Your task to perform on an android device: delete the emails in spam in the gmail app Image 0: 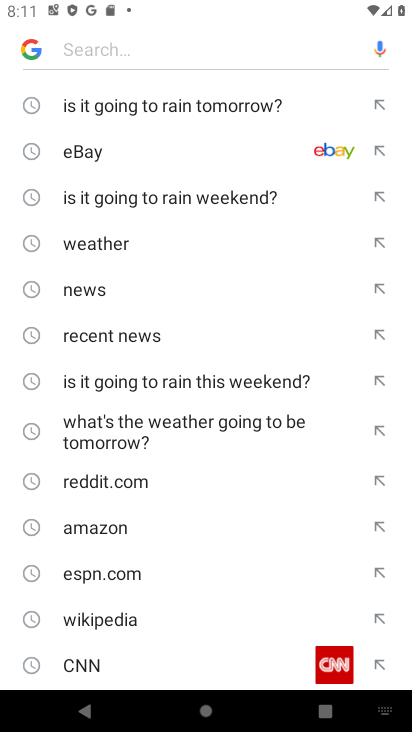
Step 0: press home button
Your task to perform on an android device: delete the emails in spam in the gmail app Image 1: 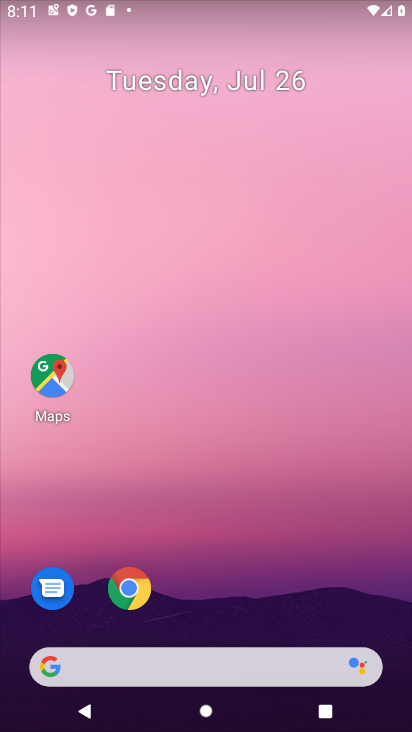
Step 1: drag from (262, 610) to (273, 60)
Your task to perform on an android device: delete the emails in spam in the gmail app Image 2: 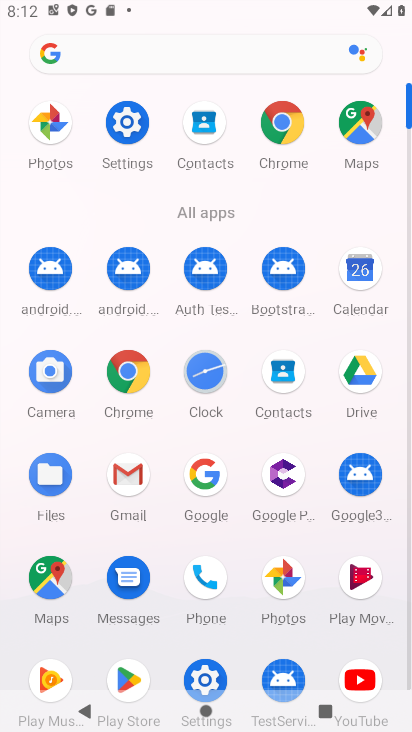
Step 2: click (132, 475)
Your task to perform on an android device: delete the emails in spam in the gmail app Image 3: 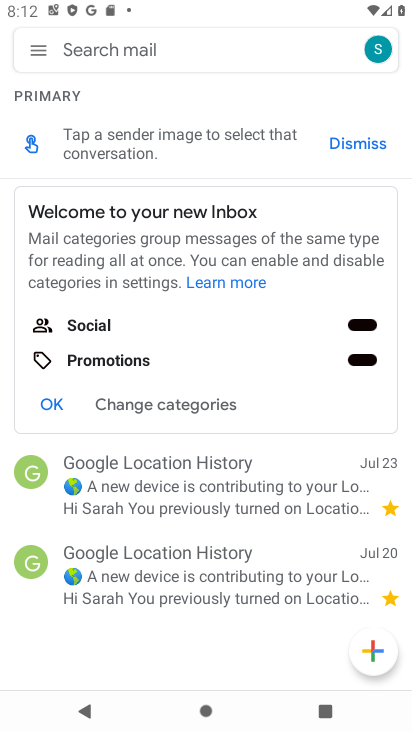
Step 3: click (37, 50)
Your task to perform on an android device: delete the emails in spam in the gmail app Image 4: 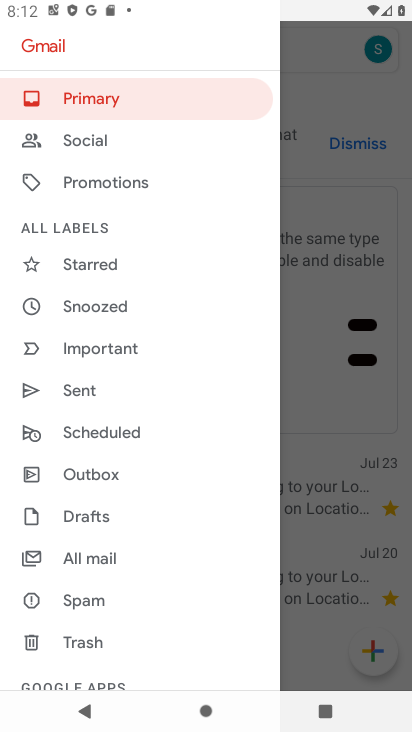
Step 4: click (90, 600)
Your task to perform on an android device: delete the emails in spam in the gmail app Image 5: 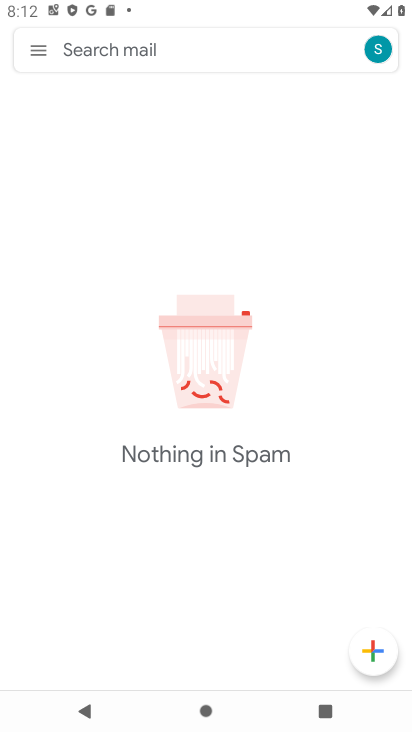
Step 5: task complete